Your task to perform on an android device: Check out the best rated electric trimmers on Lowe's Image 0: 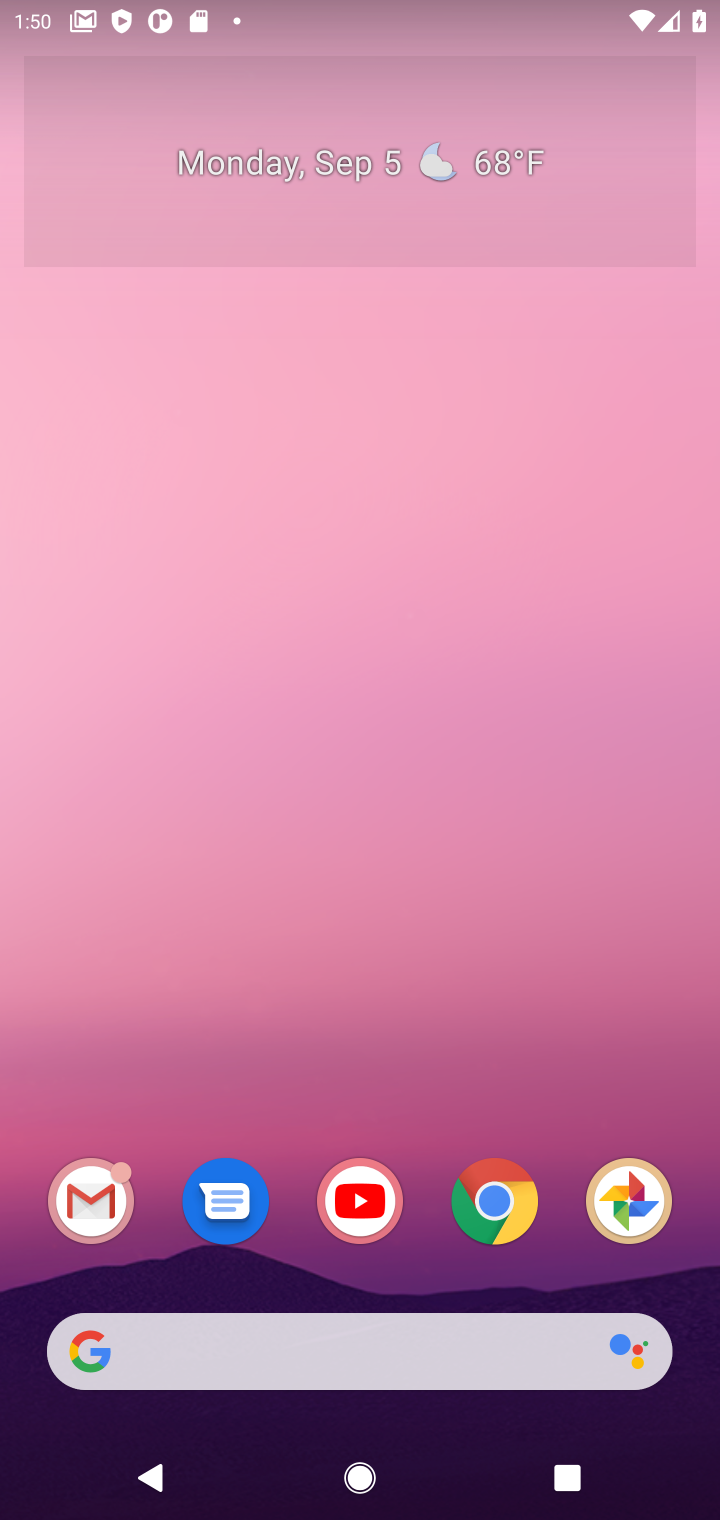
Step 0: click (494, 1196)
Your task to perform on an android device: Check out the best rated electric trimmers on Lowe's Image 1: 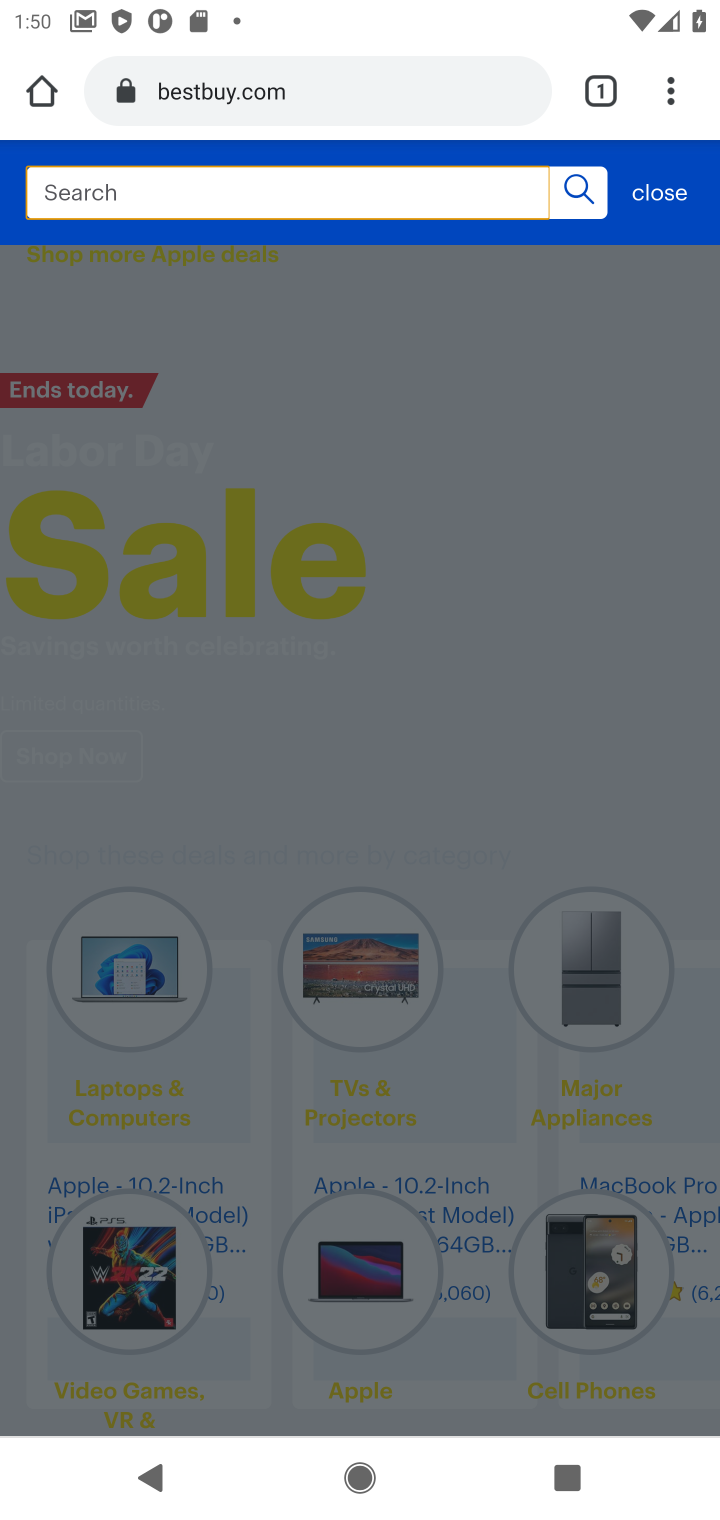
Step 1: click (360, 94)
Your task to perform on an android device: Check out the best rated electric trimmers on Lowe's Image 2: 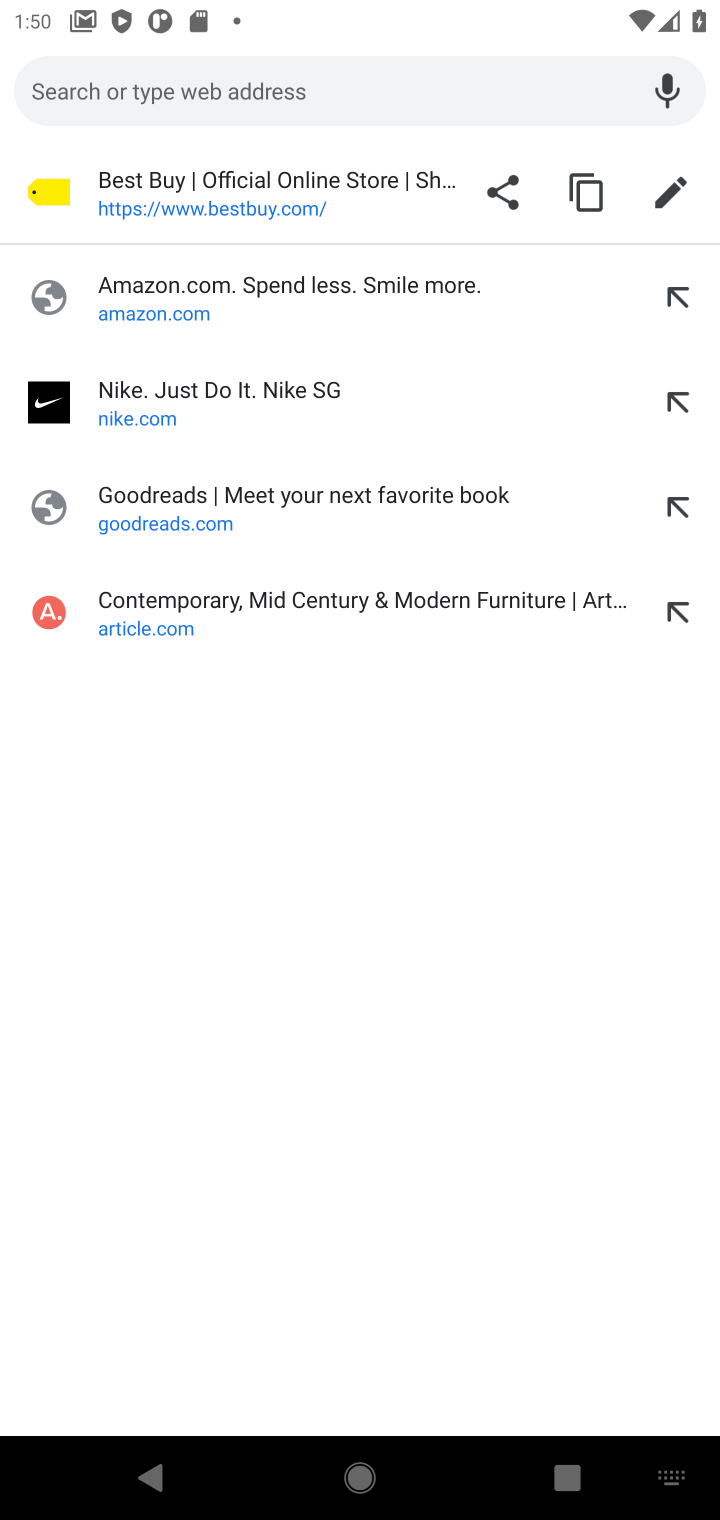
Step 2: type "Lowe's"
Your task to perform on an android device: Check out the best rated electric trimmers on Lowe's Image 3: 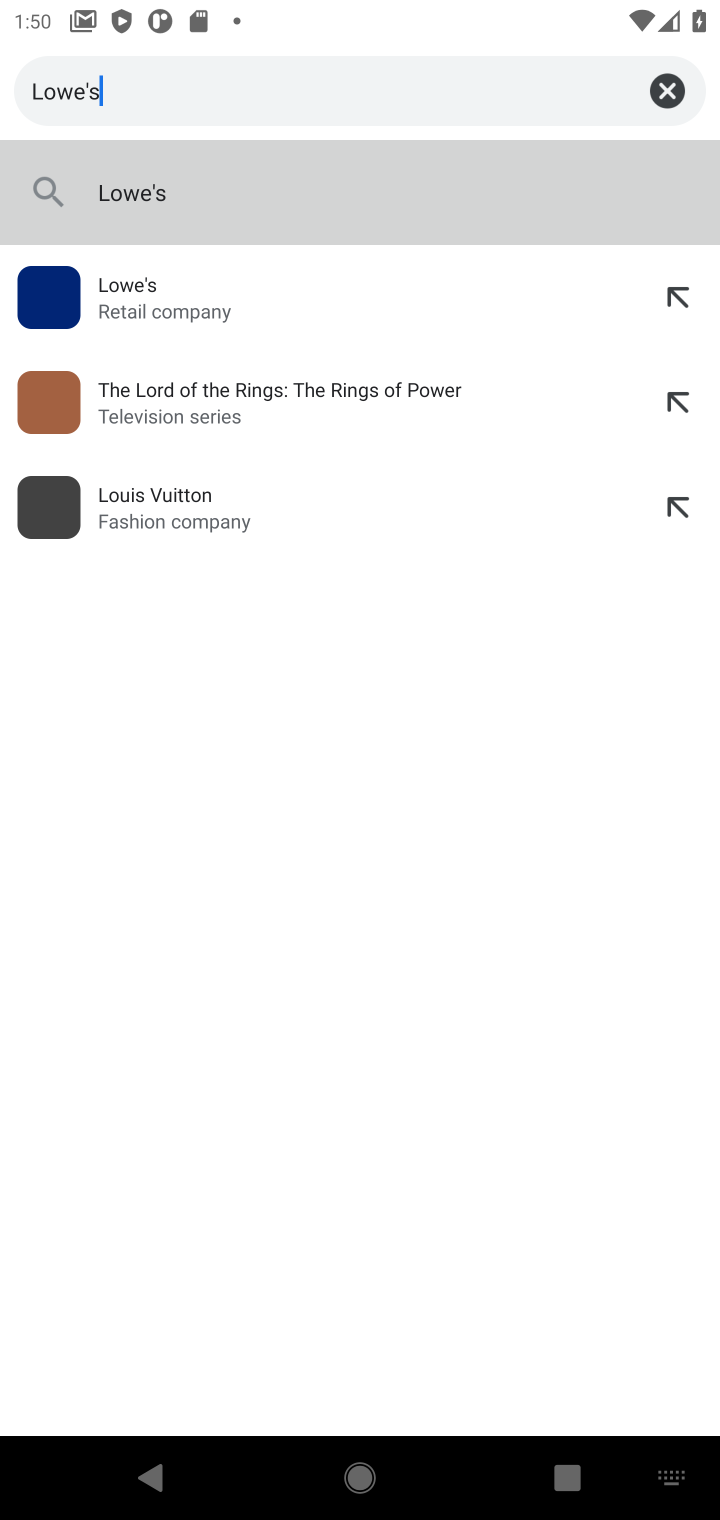
Step 3: press enter
Your task to perform on an android device: Check out the best rated electric trimmers on Lowe's Image 4: 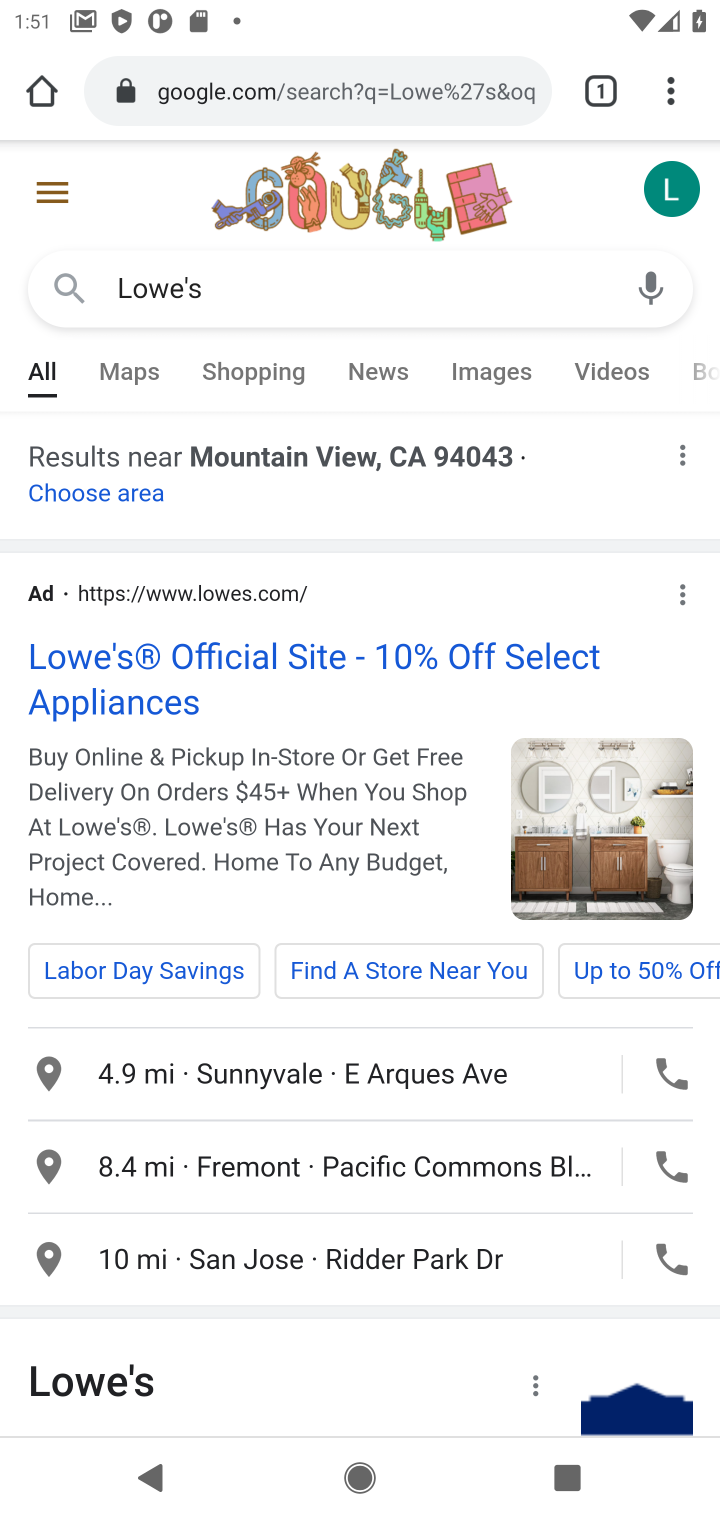
Step 4: click (217, 658)
Your task to perform on an android device: Check out the best rated electric trimmers on Lowe's Image 5: 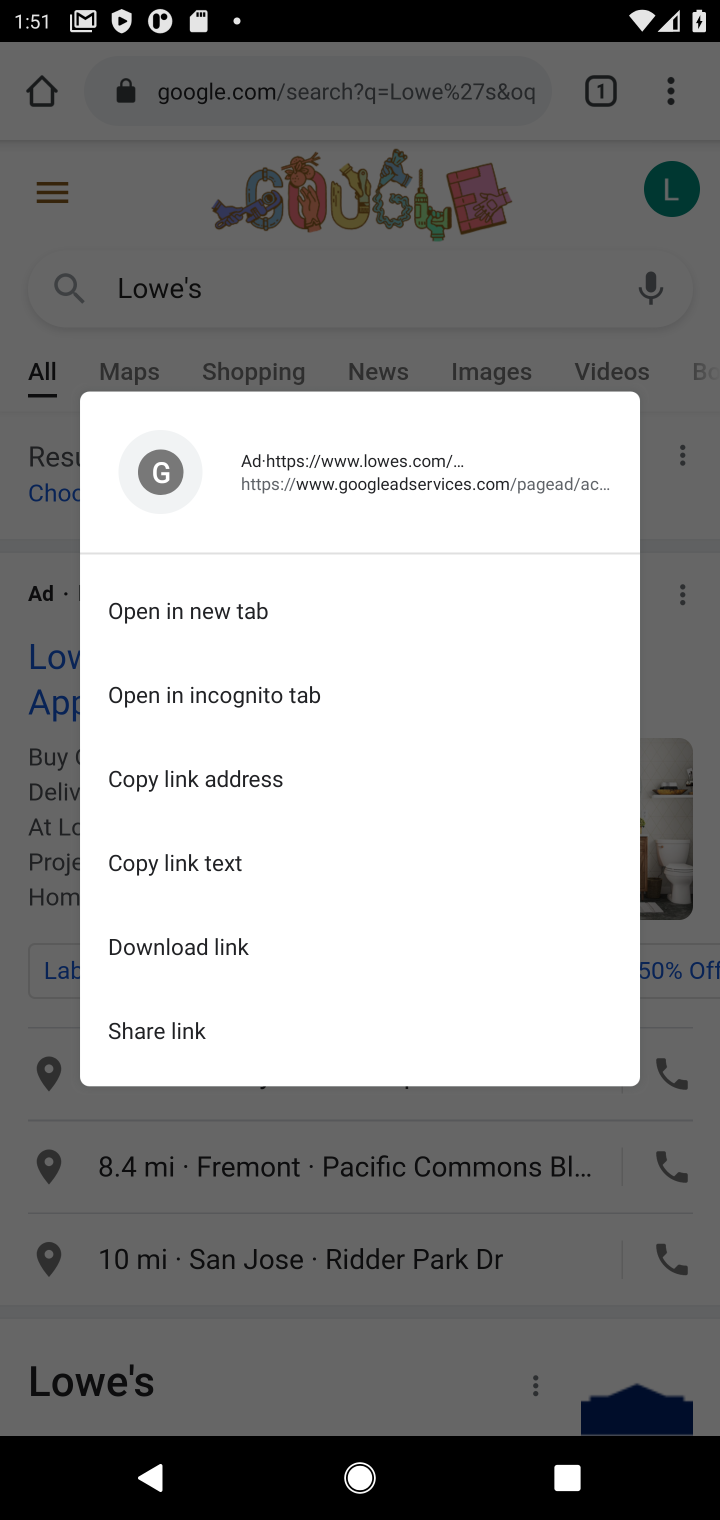
Step 5: click (592, 1330)
Your task to perform on an android device: Check out the best rated electric trimmers on Lowe's Image 6: 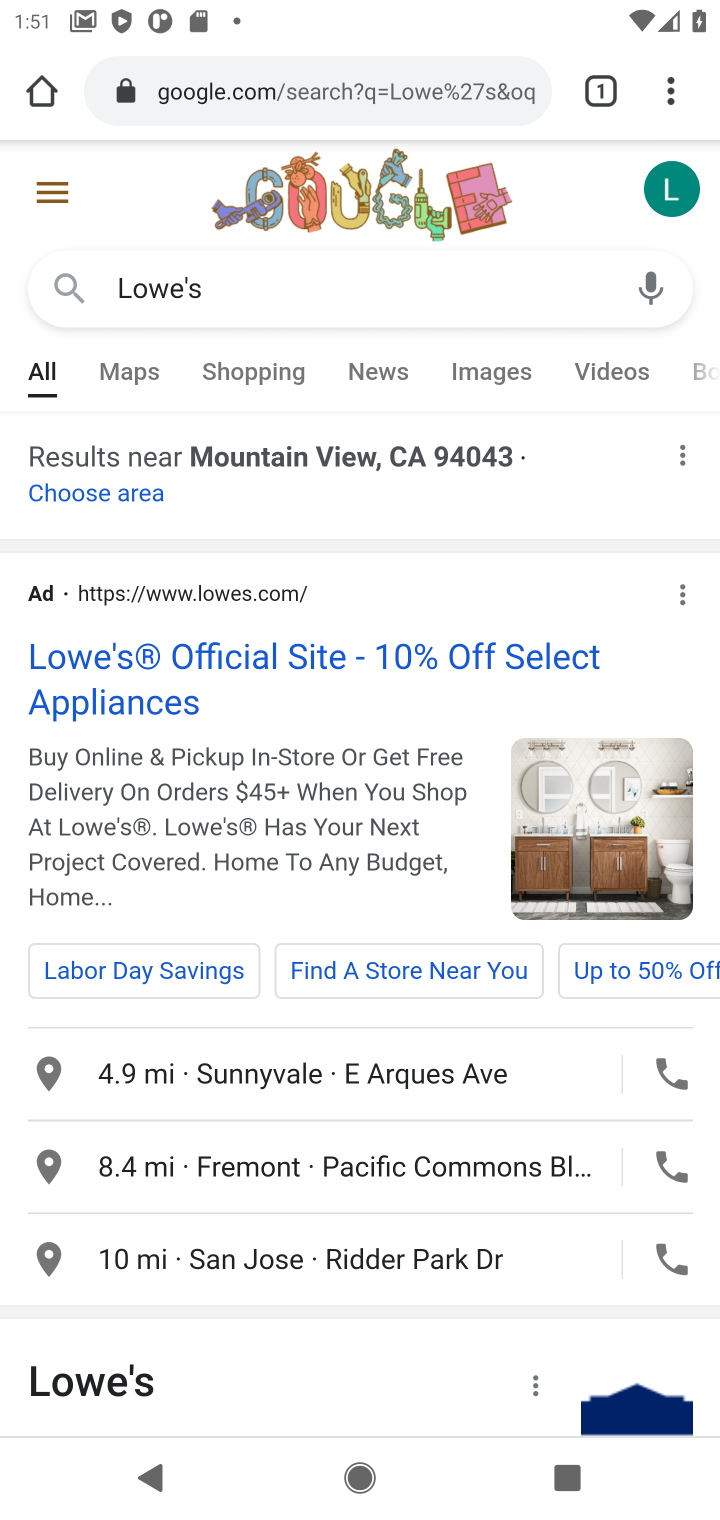
Step 6: click (139, 668)
Your task to perform on an android device: Check out the best rated electric trimmers on Lowe's Image 7: 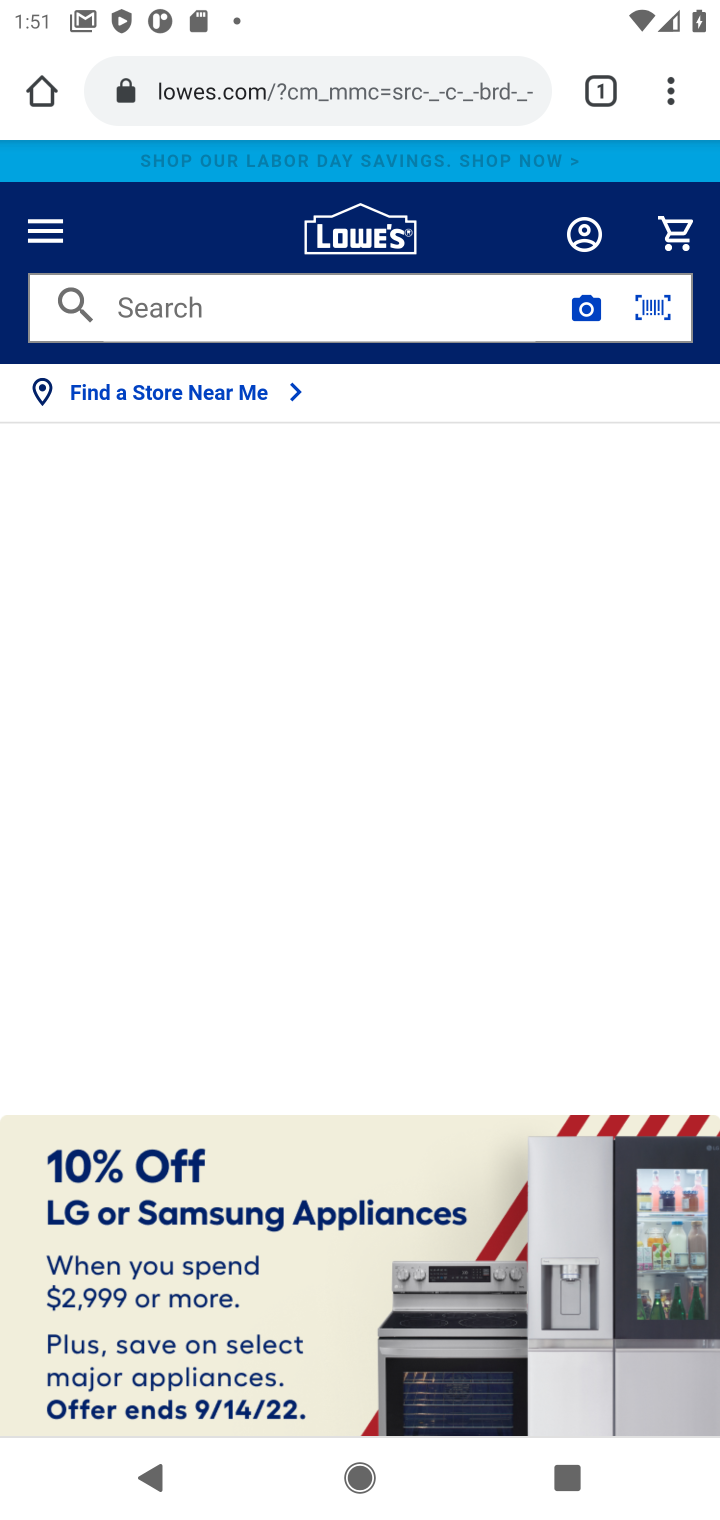
Step 7: click (362, 318)
Your task to perform on an android device: Check out the best rated electric trimmers on Lowe's Image 8: 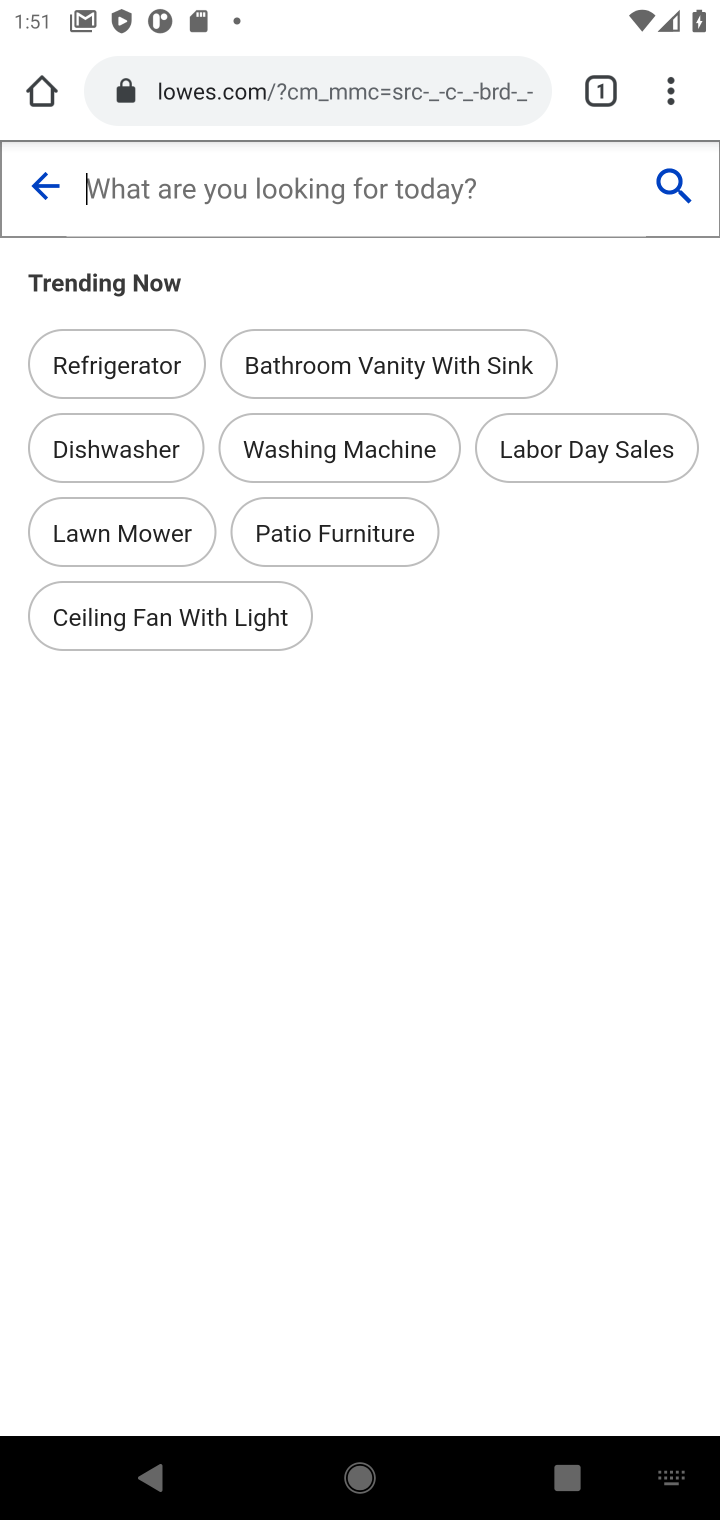
Step 8: type "electric trimmers"
Your task to perform on an android device: Check out the best rated electric trimmers on Lowe's Image 9: 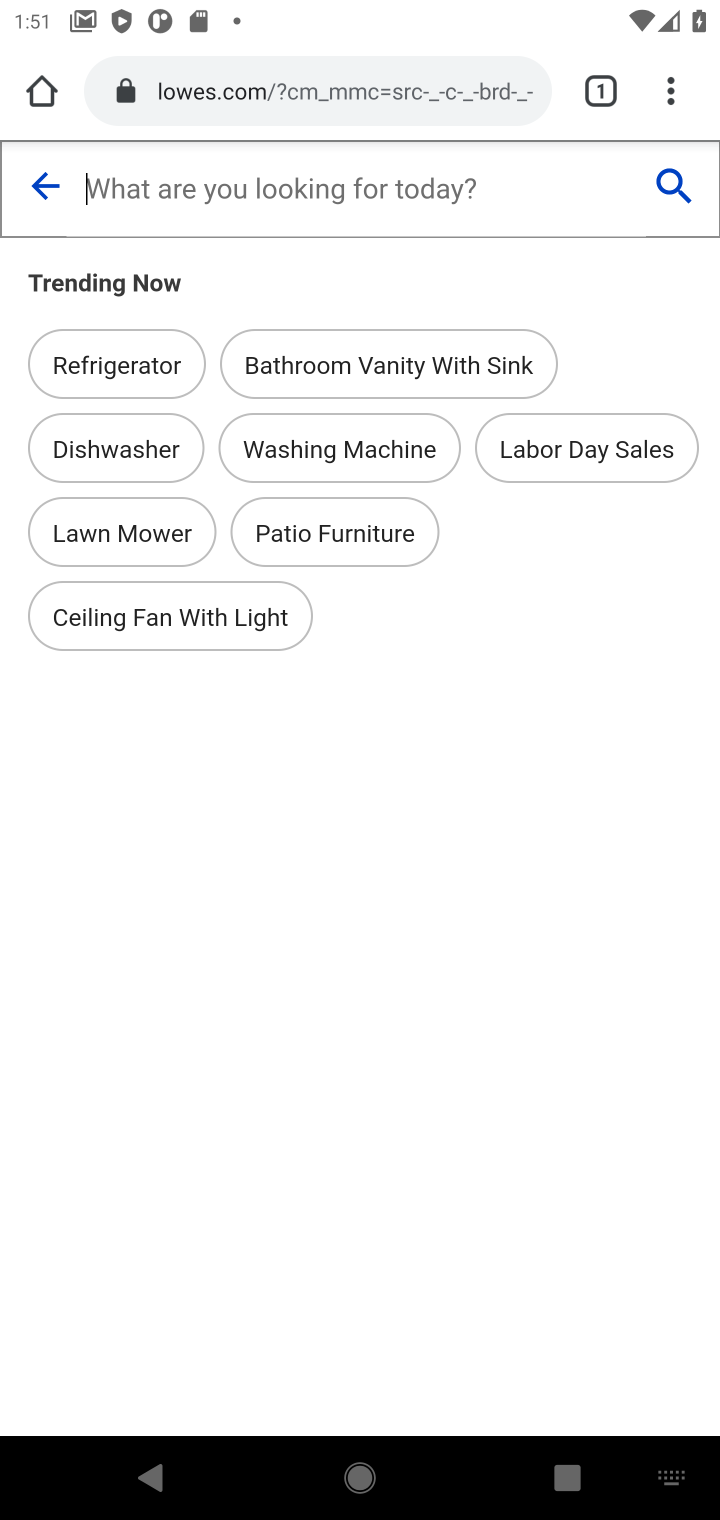
Step 9: press enter
Your task to perform on an android device: Check out the best rated electric trimmers on Lowe's Image 10: 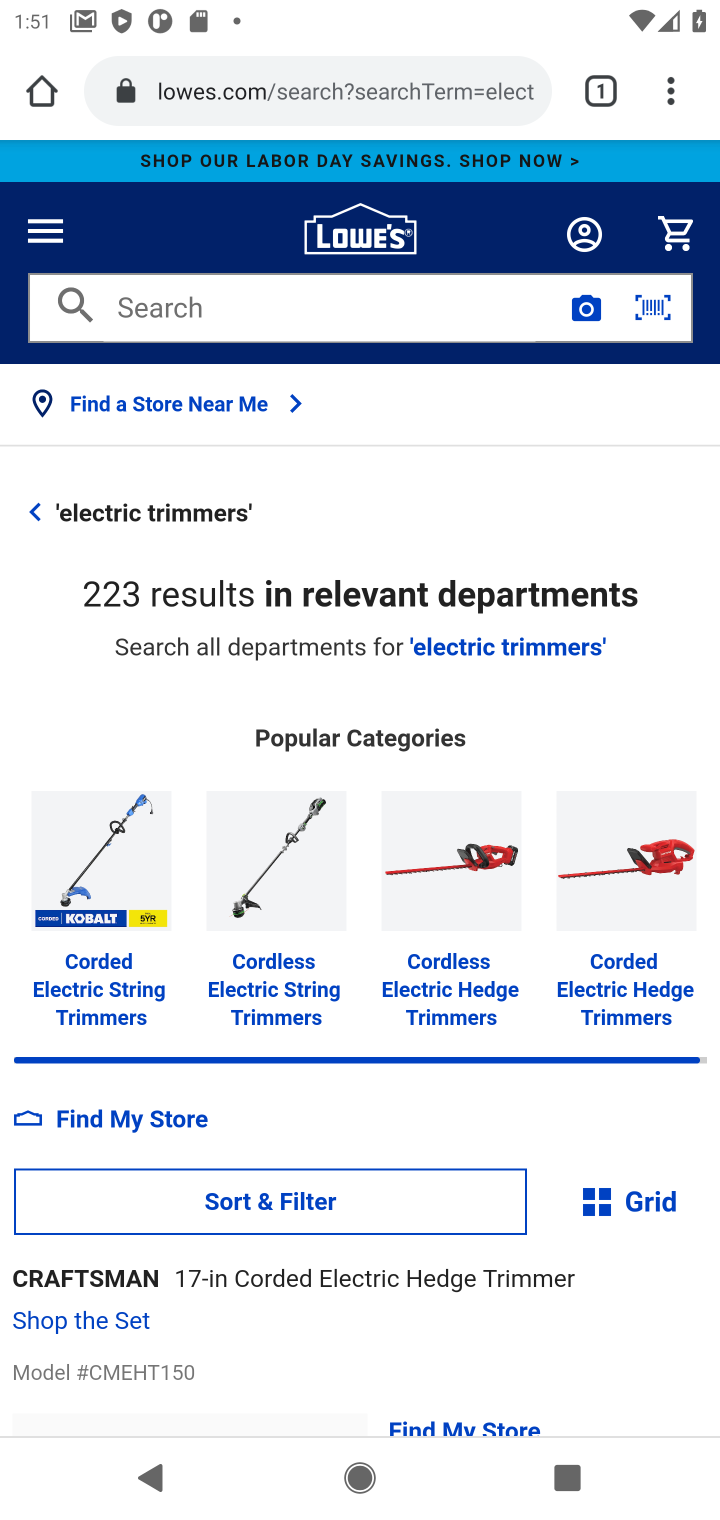
Step 10: drag from (359, 1224) to (573, 547)
Your task to perform on an android device: Check out the best rated electric trimmers on Lowe's Image 11: 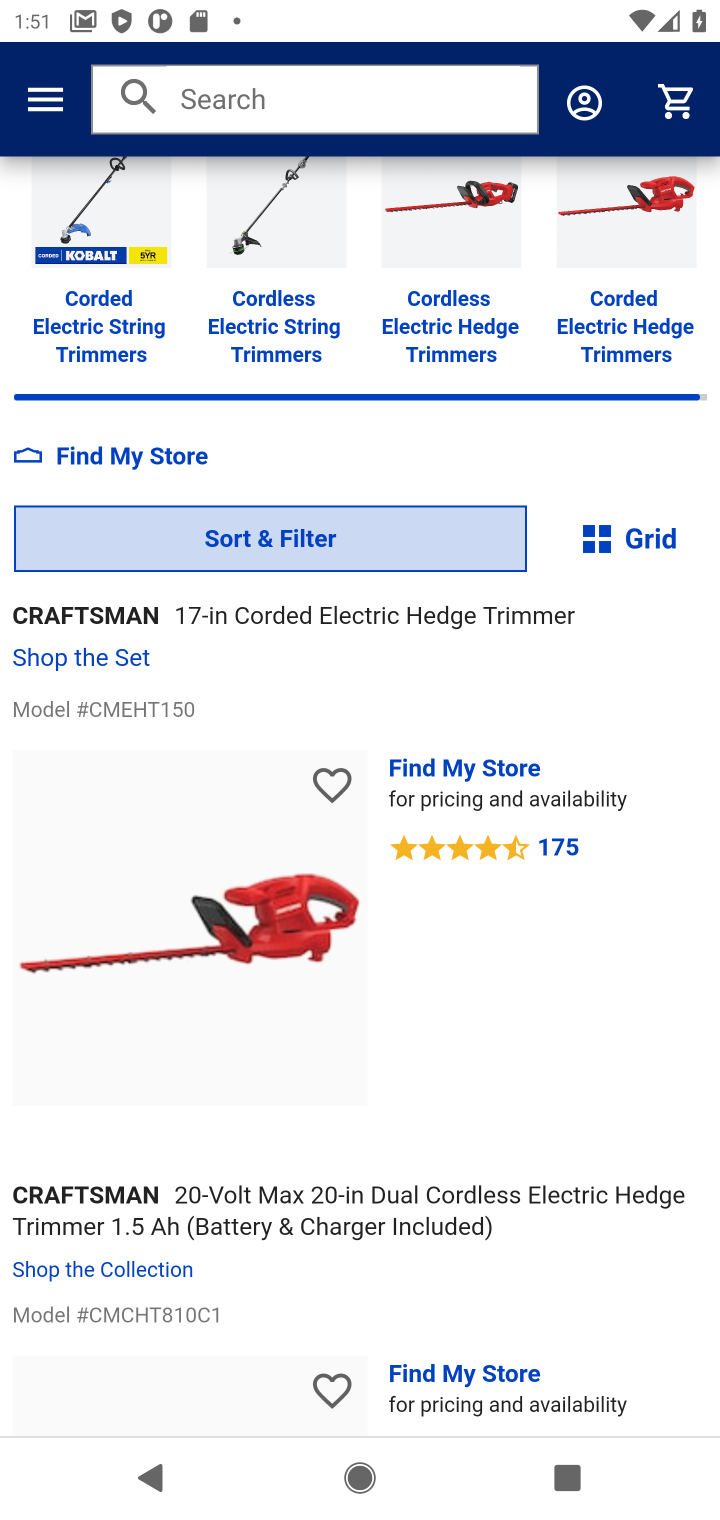
Step 11: drag from (462, 987) to (597, 705)
Your task to perform on an android device: Check out the best rated electric trimmers on Lowe's Image 12: 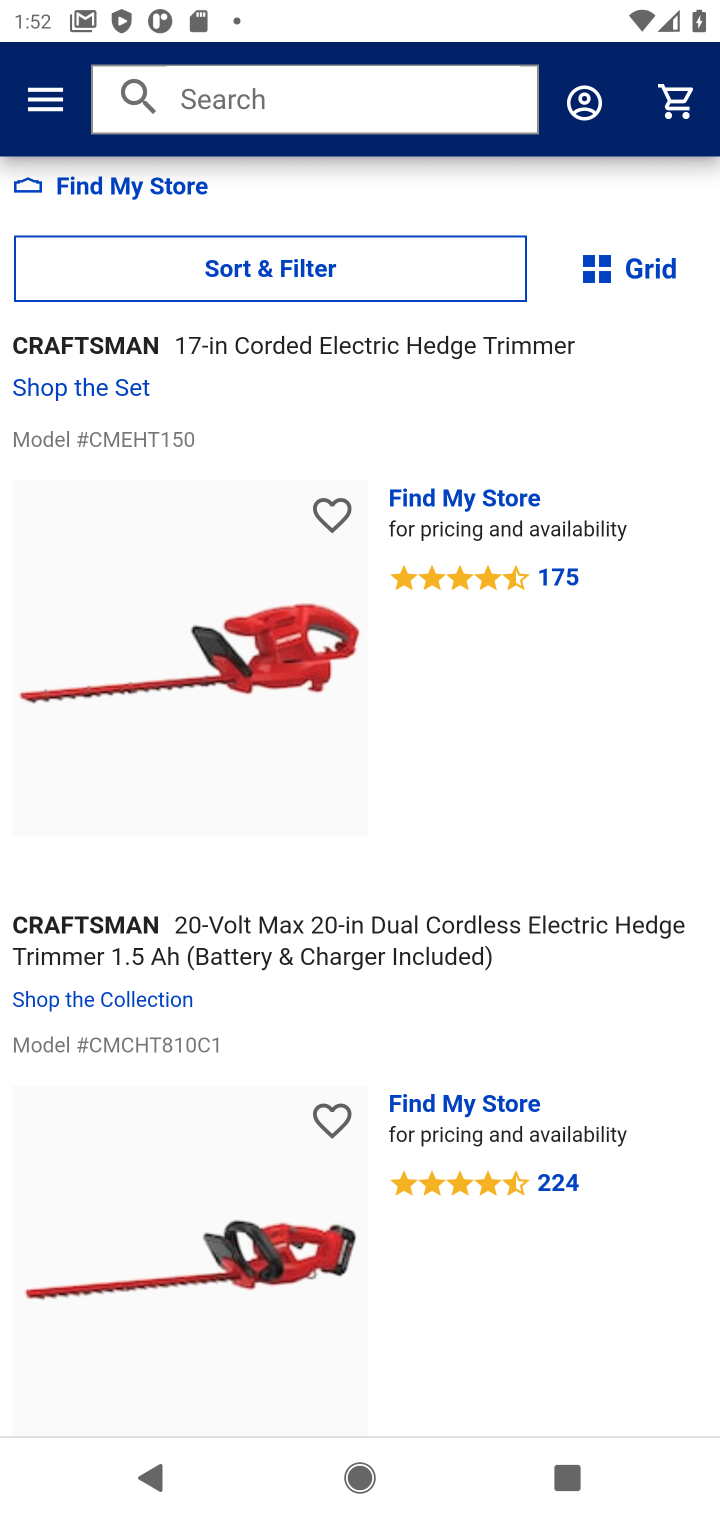
Step 12: drag from (446, 611) to (254, 1293)
Your task to perform on an android device: Check out the best rated electric trimmers on Lowe's Image 13: 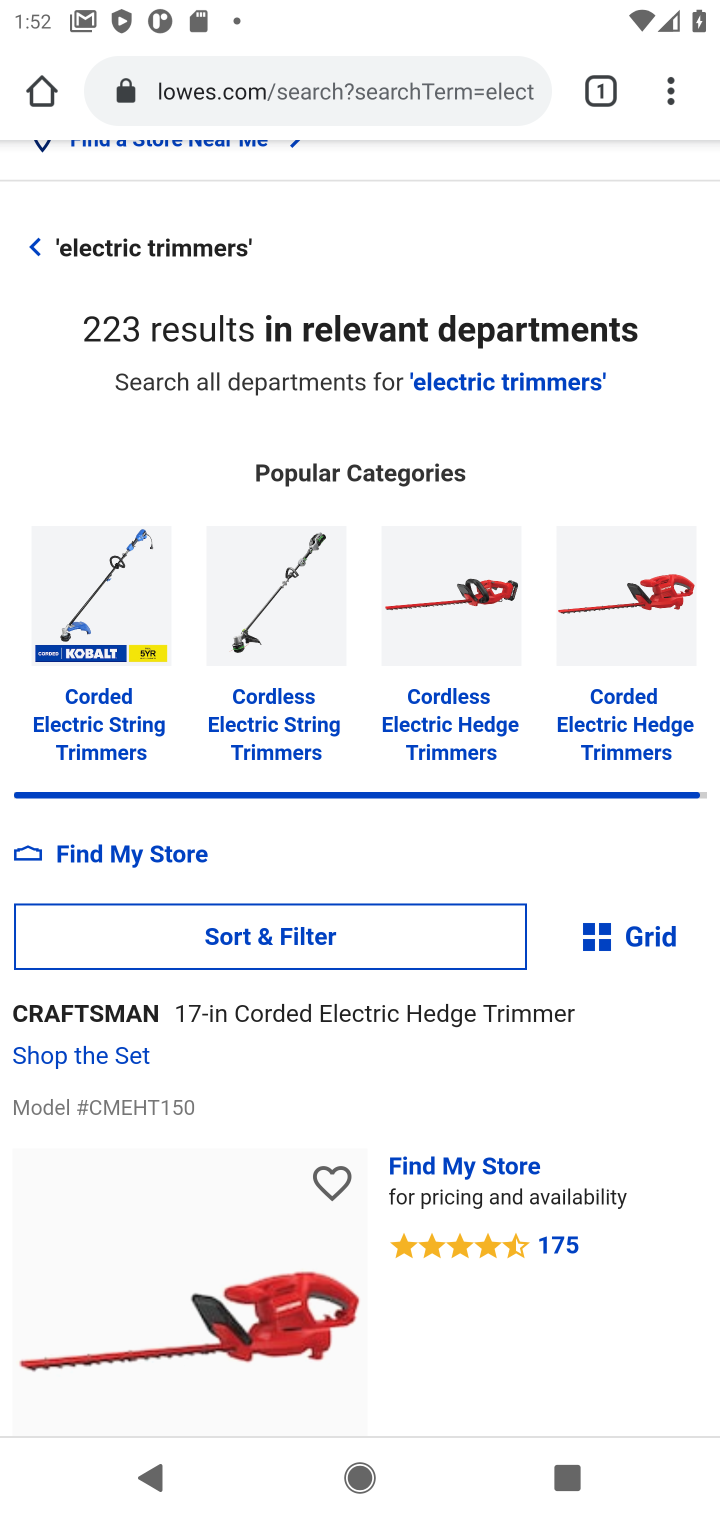
Step 13: drag from (464, 259) to (481, 937)
Your task to perform on an android device: Check out the best rated electric trimmers on Lowe's Image 14: 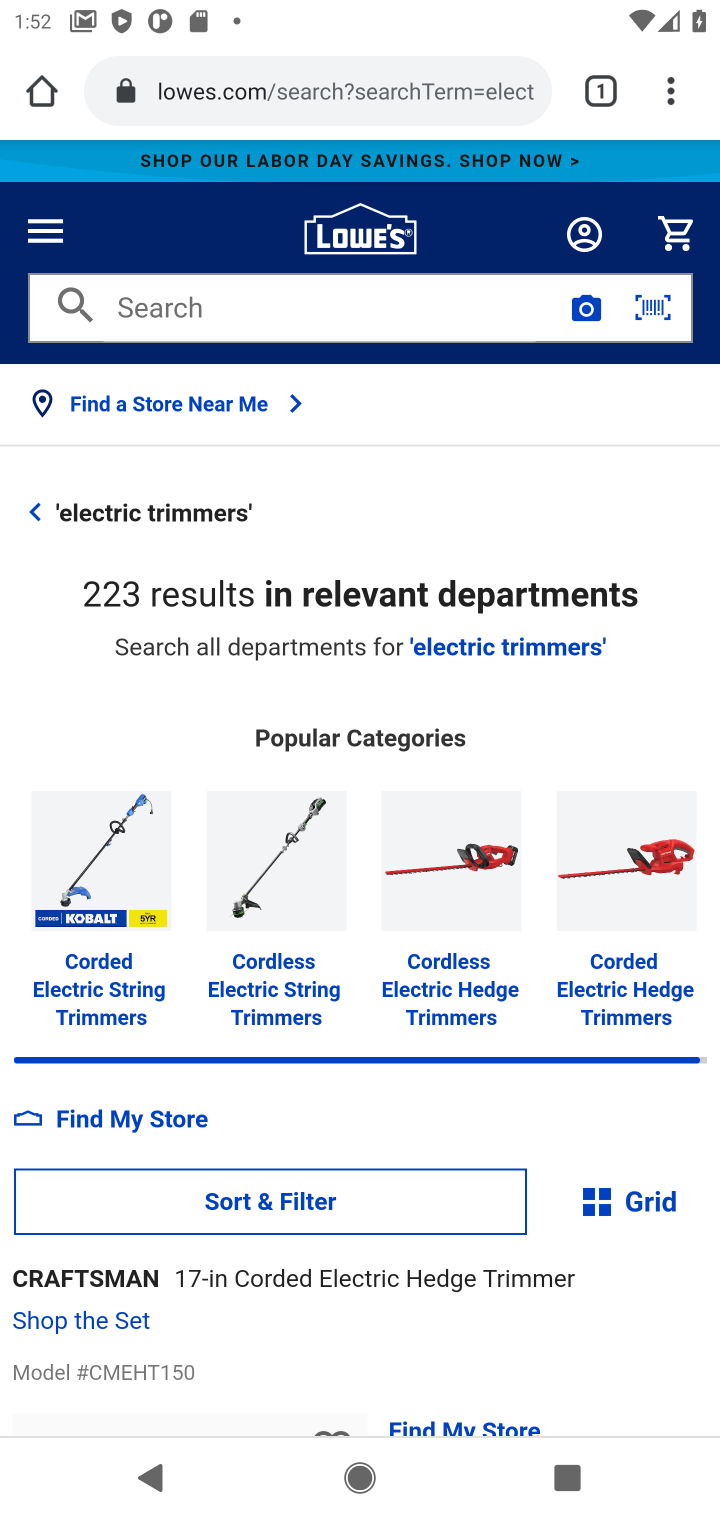
Step 14: click (516, 654)
Your task to perform on an android device: Check out the best rated electric trimmers on Lowe's Image 15: 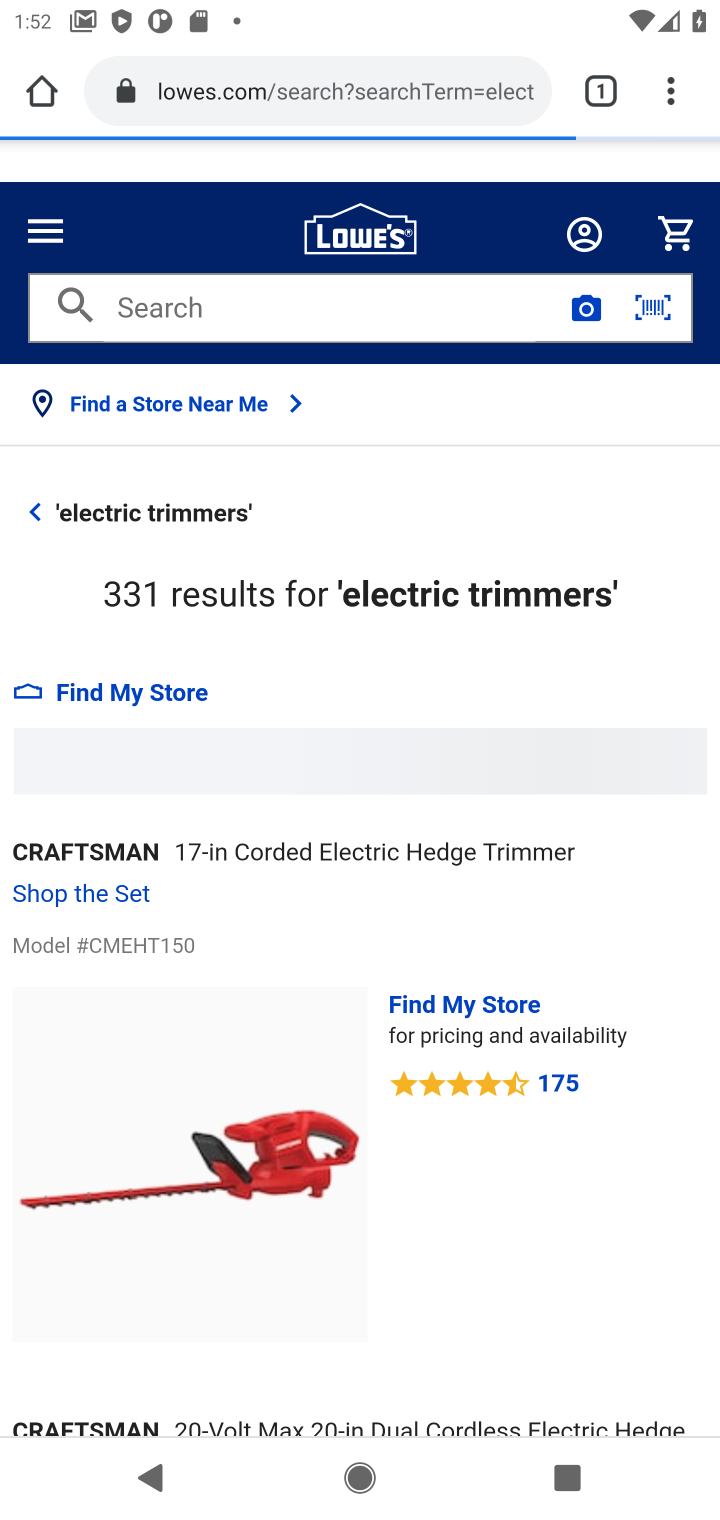
Step 15: task complete